Your task to perform on an android device: set an alarm Image 0: 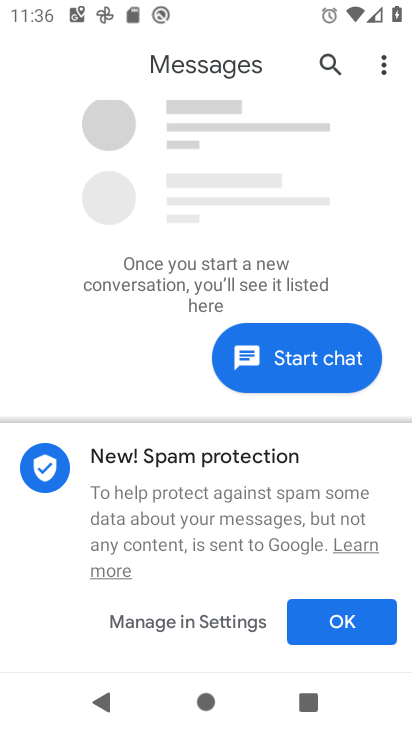
Step 0: press home button
Your task to perform on an android device: set an alarm Image 1: 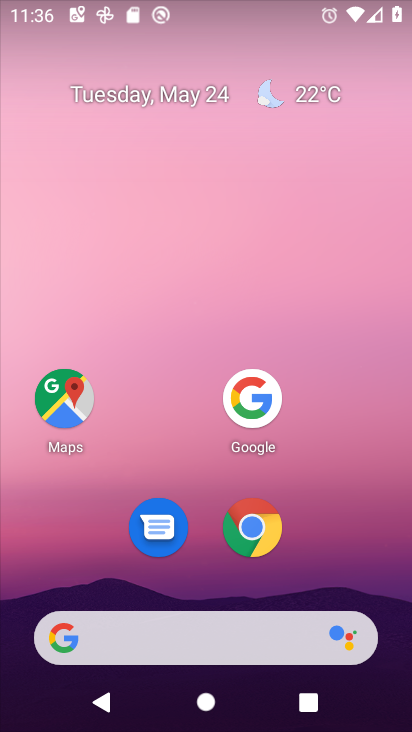
Step 1: drag from (185, 631) to (292, 191)
Your task to perform on an android device: set an alarm Image 2: 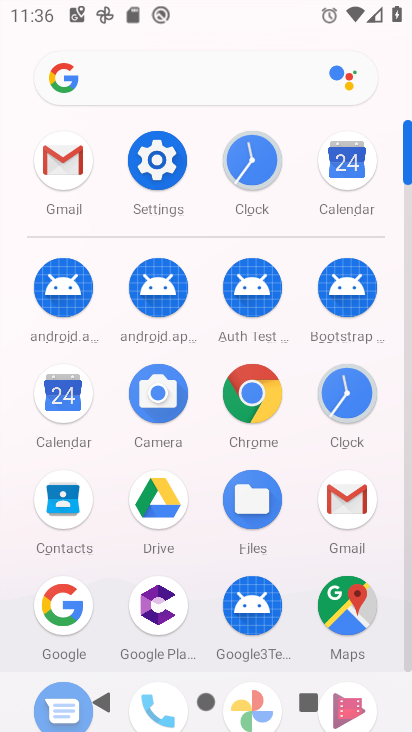
Step 2: click (338, 402)
Your task to perform on an android device: set an alarm Image 3: 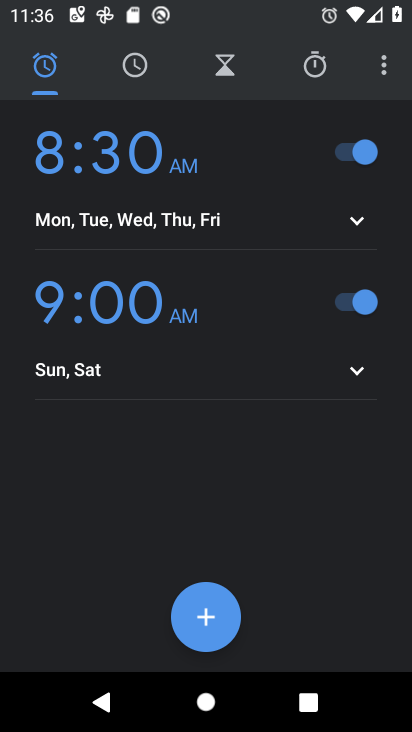
Step 3: task complete